Your task to perform on an android device: Go to display settings Image 0: 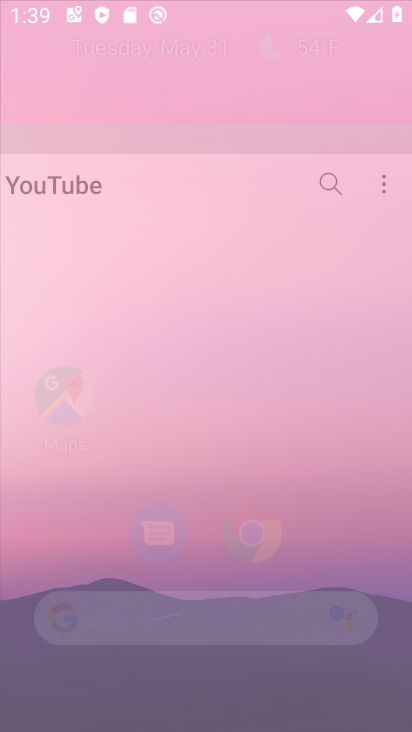
Step 0: click (310, 81)
Your task to perform on an android device: Go to display settings Image 1: 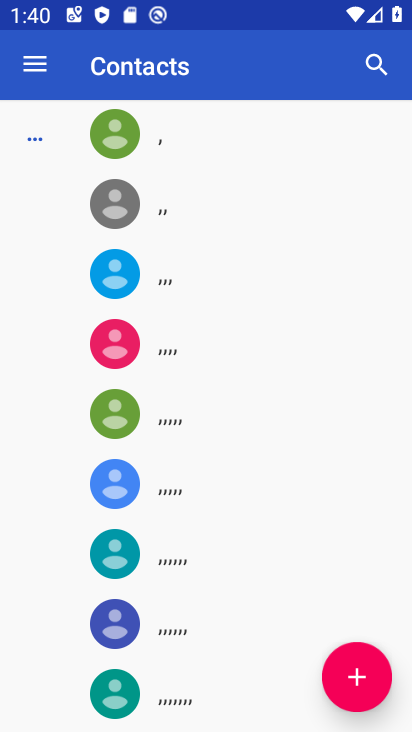
Step 1: drag from (211, 629) to (295, 39)
Your task to perform on an android device: Go to display settings Image 2: 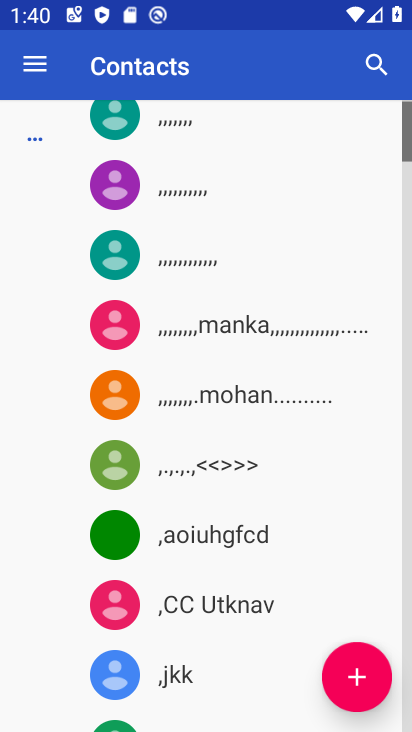
Step 2: drag from (216, 193) to (235, 730)
Your task to perform on an android device: Go to display settings Image 3: 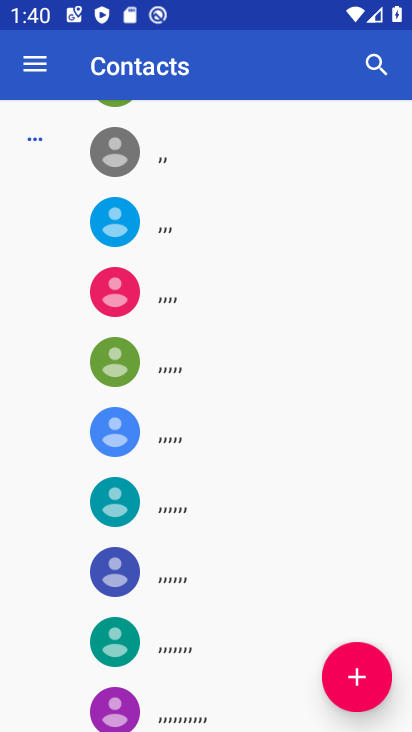
Step 3: press home button
Your task to perform on an android device: Go to display settings Image 4: 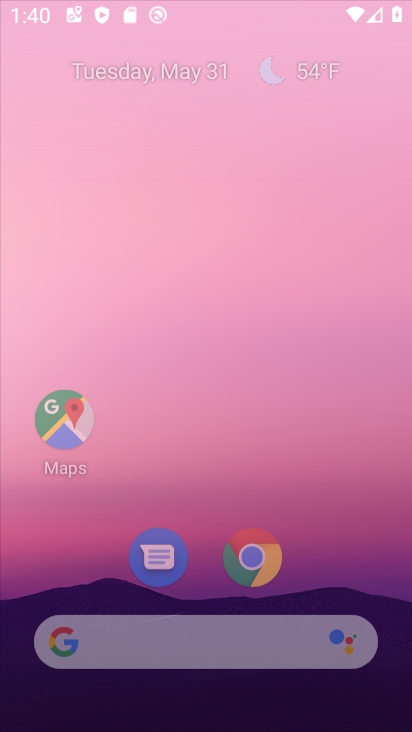
Step 4: drag from (259, 547) to (287, 326)
Your task to perform on an android device: Go to display settings Image 5: 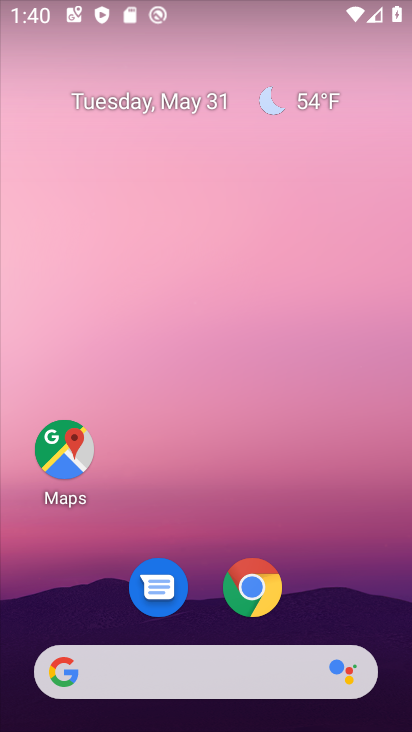
Step 5: drag from (210, 626) to (313, 96)
Your task to perform on an android device: Go to display settings Image 6: 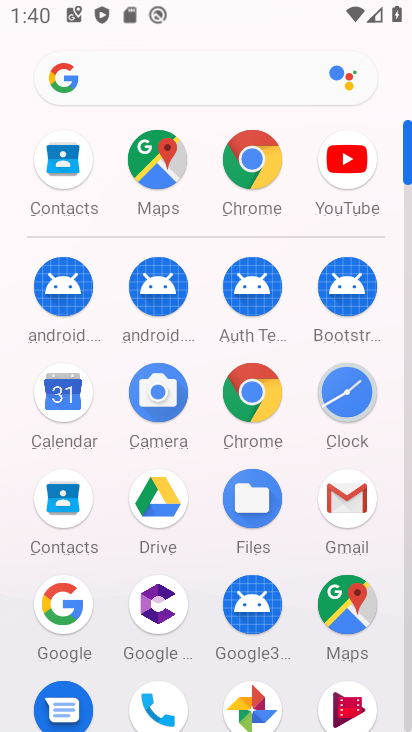
Step 6: drag from (196, 533) to (217, 167)
Your task to perform on an android device: Go to display settings Image 7: 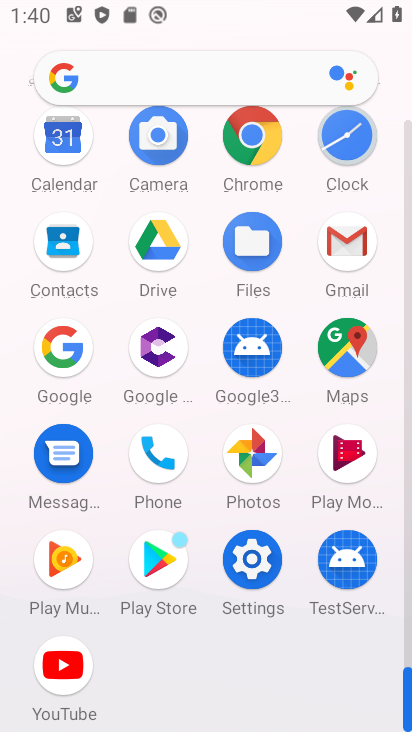
Step 7: click (265, 547)
Your task to perform on an android device: Go to display settings Image 8: 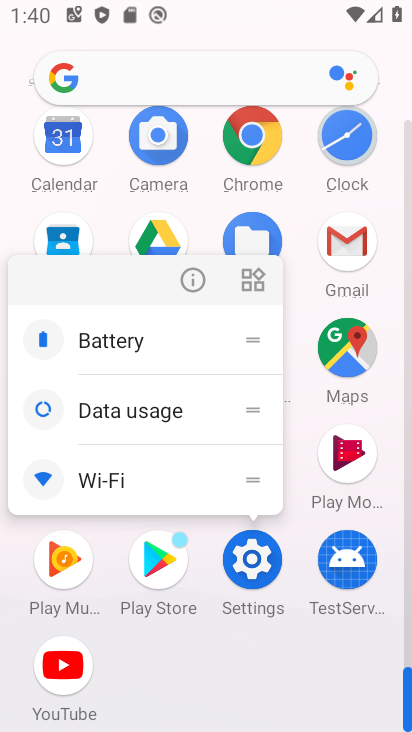
Step 8: click (190, 269)
Your task to perform on an android device: Go to display settings Image 9: 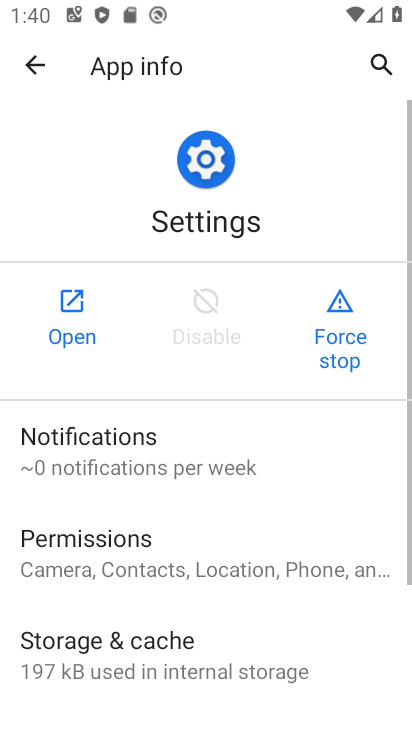
Step 9: click (67, 311)
Your task to perform on an android device: Go to display settings Image 10: 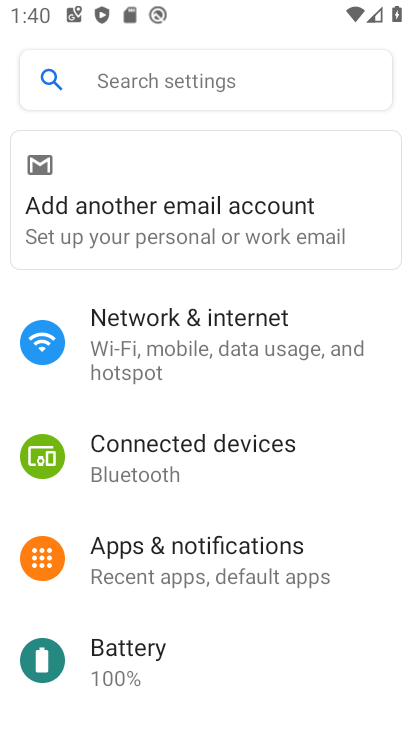
Step 10: drag from (249, 603) to (309, 229)
Your task to perform on an android device: Go to display settings Image 11: 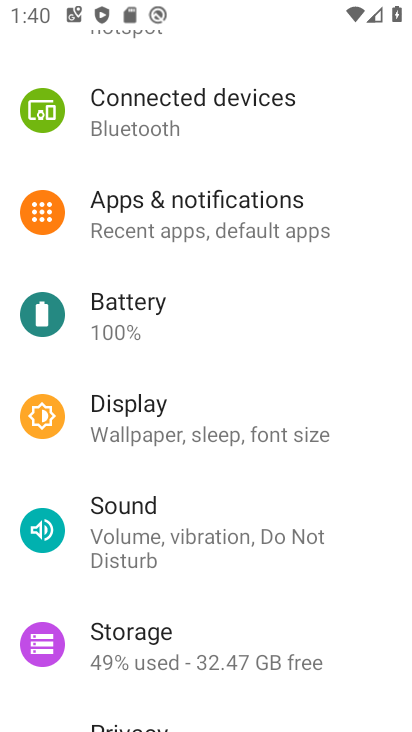
Step 11: click (227, 407)
Your task to perform on an android device: Go to display settings Image 12: 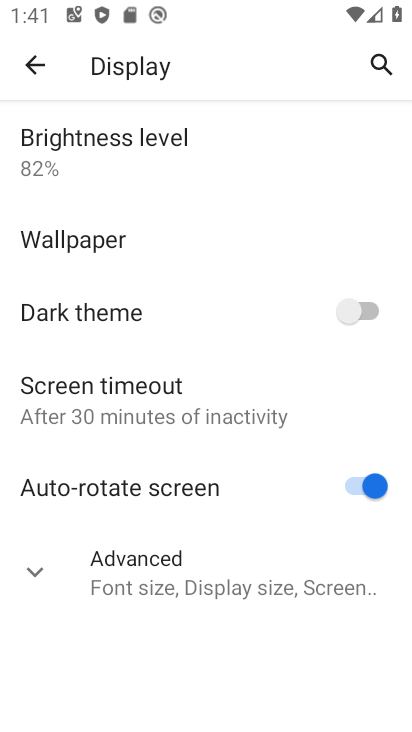
Step 12: task complete